Your task to perform on an android device: open wifi settings Image 0: 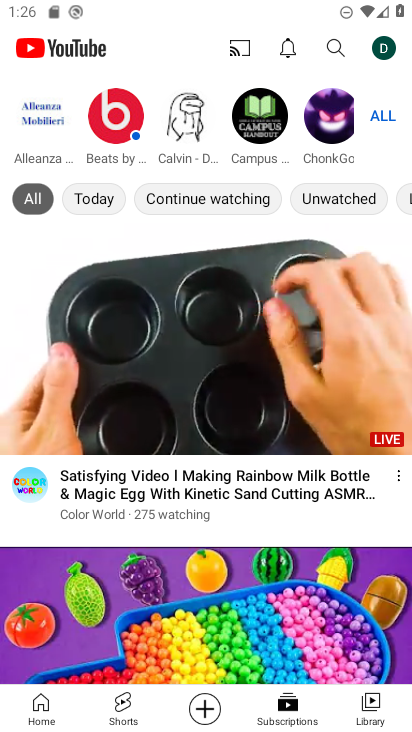
Step 0: press back button
Your task to perform on an android device: open wifi settings Image 1: 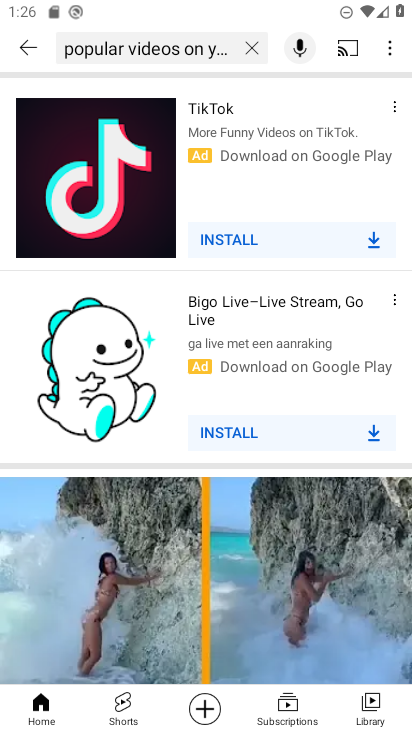
Step 1: press back button
Your task to perform on an android device: open wifi settings Image 2: 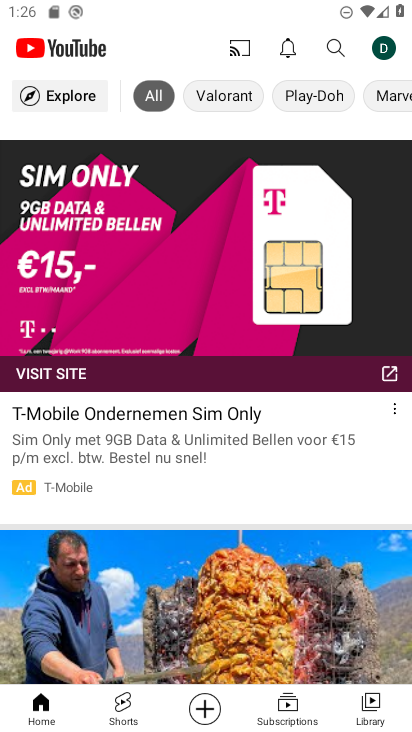
Step 2: press back button
Your task to perform on an android device: open wifi settings Image 3: 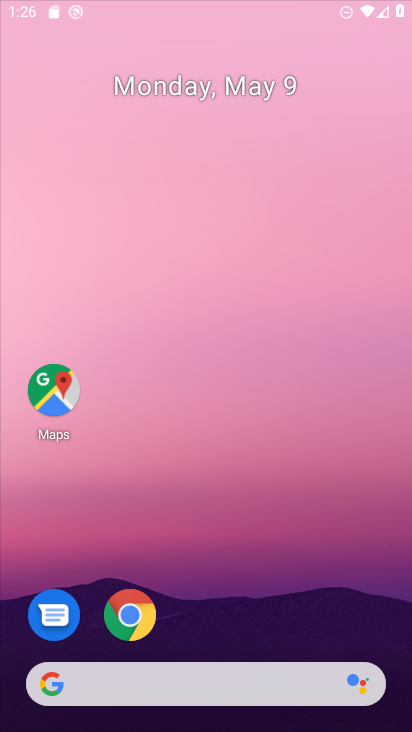
Step 3: press back button
Your task to perform on an android device: open wifi settings Image 4: 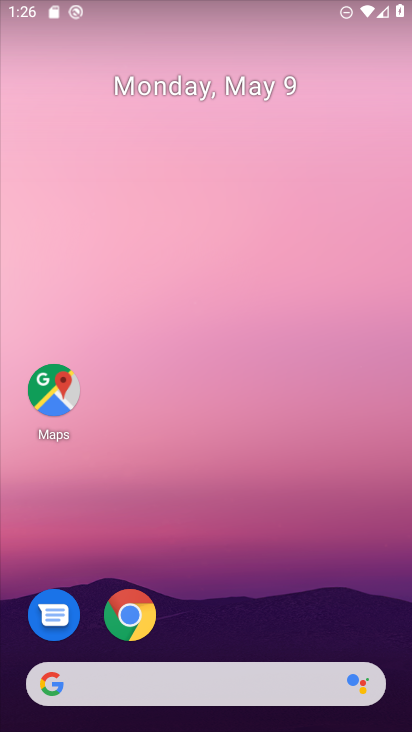
Step 4: drag from (282, 613) to (227, 25)
Your task to perform on an android device: open wifi settings Image 5: 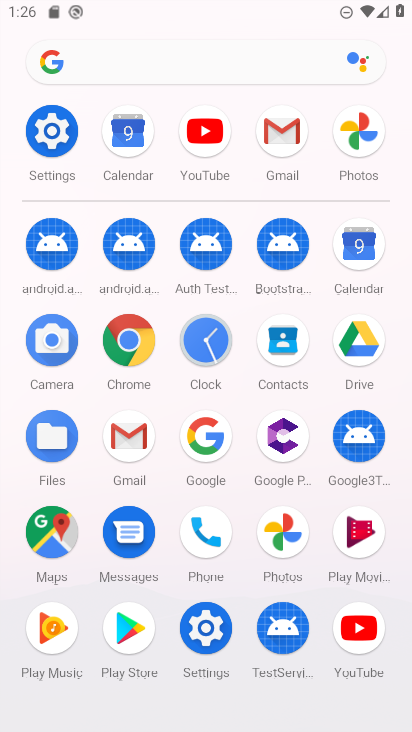
Step 5: click (51, 128)
Your task to perform on an android device: open wifi settings Image 6: 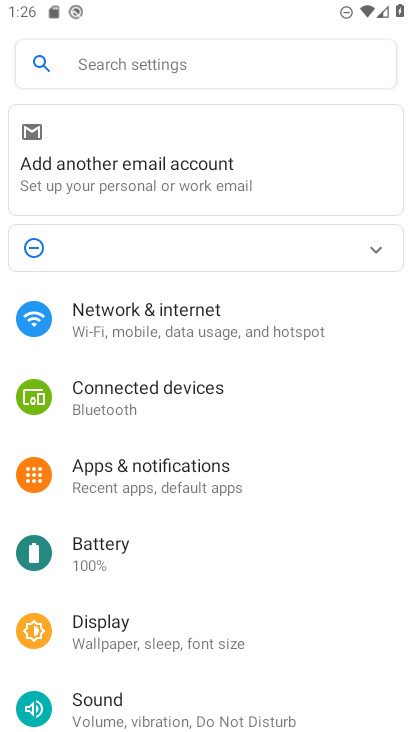
Step 6: click (160, 309)
Your task to perform on an android device: open wifi settings Image 7: 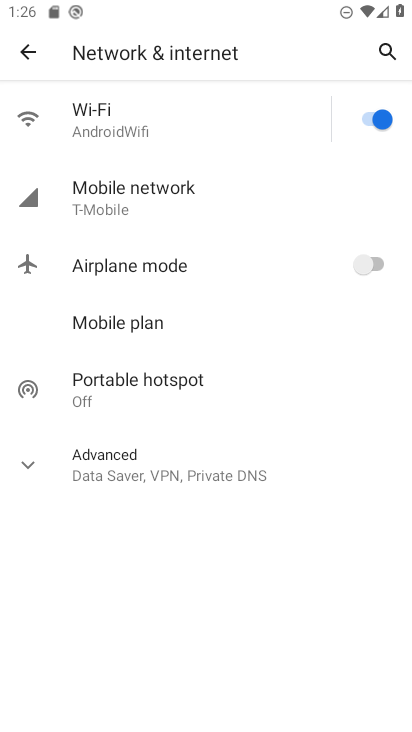
Step 7: click (101, 111)
Your task to perform on an android device: open wifi settings Image 8: 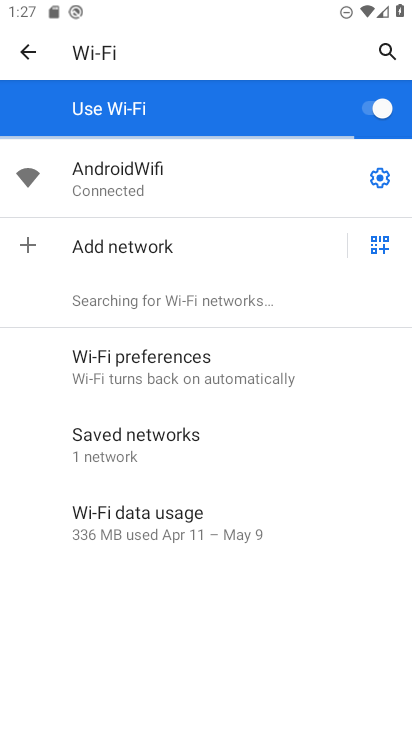
Step 8: click (378, 178)
Your task to perform on an android device: open wifi settings Image 9: 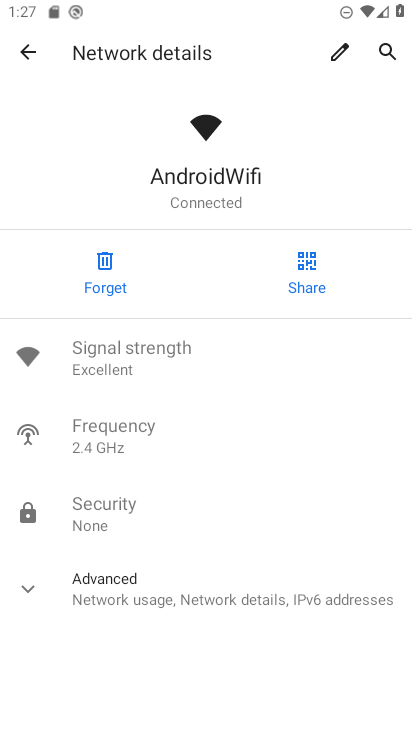
Step 9: task complete